Your task to perform on an android device: turn on bluetooth scan Image 0: 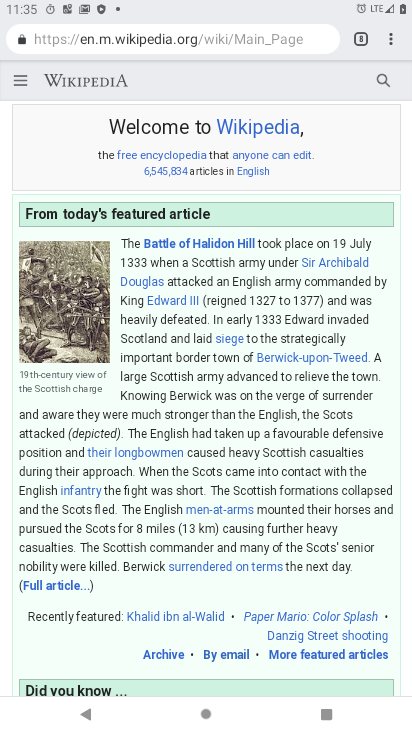
Step 0: press home button
Your task to perform on an android device: turn on bluetooth scan Image 1: 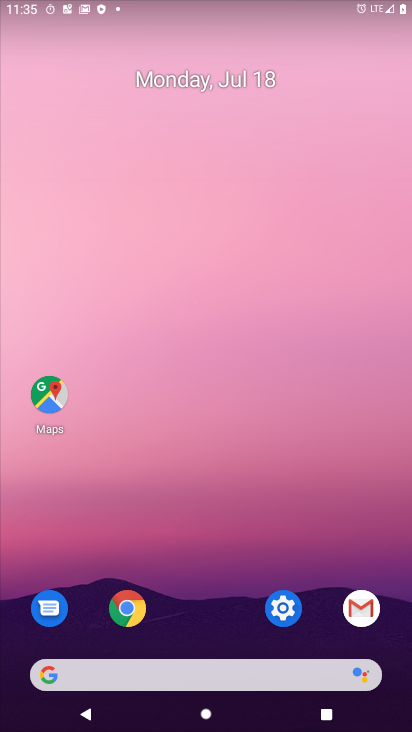
Step 1: click (291, 607)
Your task to perform on an android device: turn on bluetooth scan Image 2: 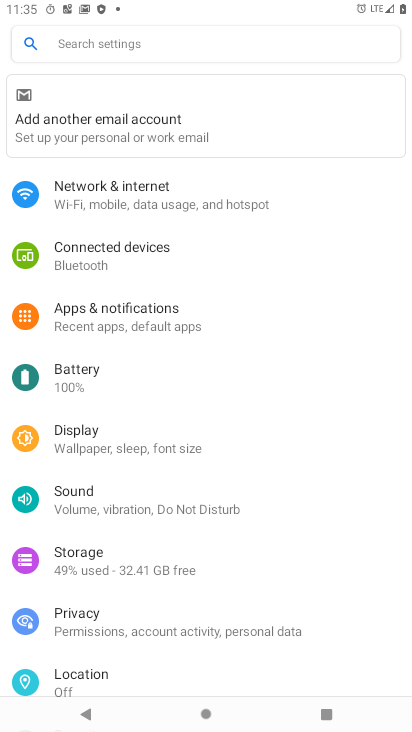
Step 2: click (136, 42)
Your task to perform on an android device: turn on bluetooth scan Image 3: 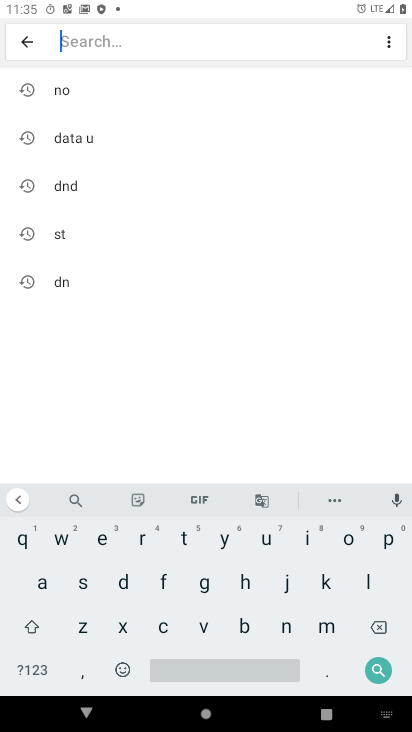
Step 3: click (368, 589)
Your task to perform on an android device: turn on bluetooth scan Image 4: 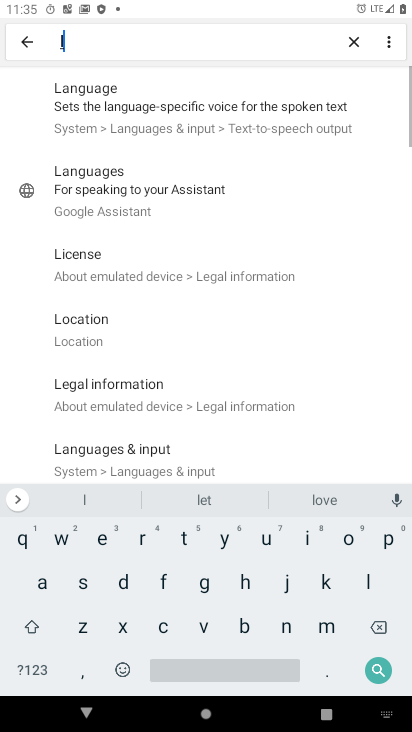
Step 4: click (346, 546)
Your task to perform on an android device: turn on bluetooth scan Image 5: 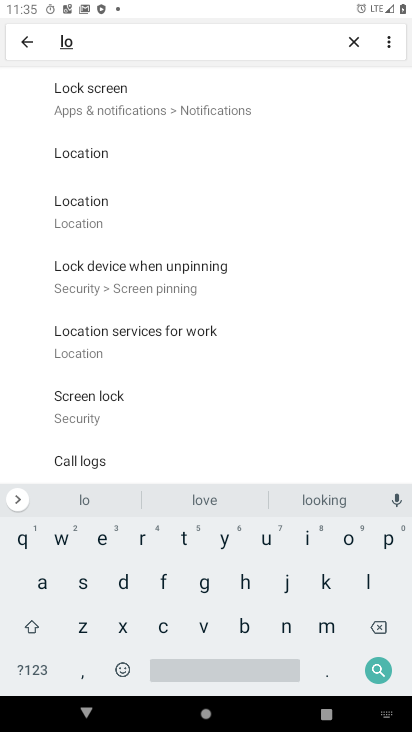
Step 5: click (97, 209)
Your task to perform on an android device: turn on bluetooth scan Image 6: 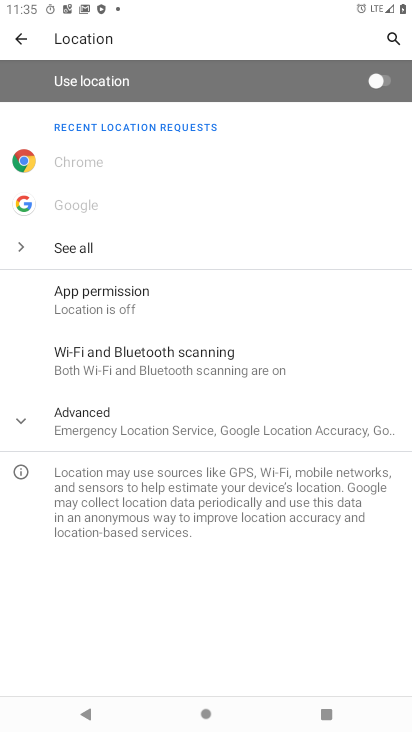
Step 6: click (378, 77)
Your task to perform on an android device: turn on bluetooth scan Image 7: 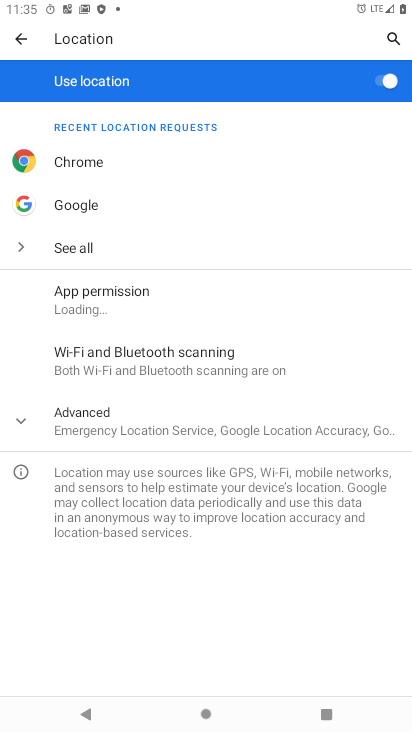
Step 7: click (155, 378)
Your task to perform on an android device: turn on bluetooth scan Image 8: 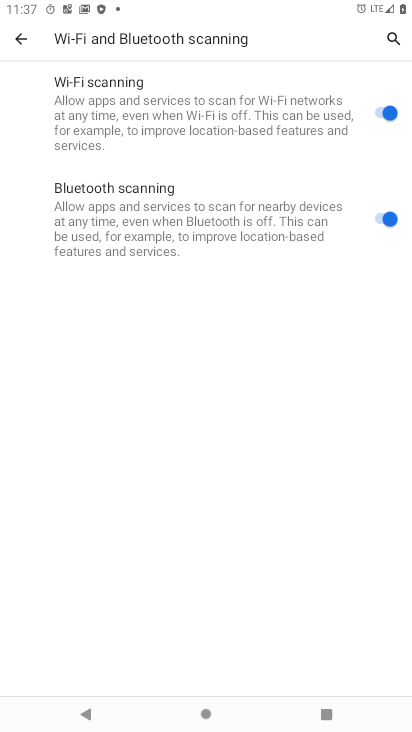
Step 8: task complete